Your task to perform on an android device: open device folders in google photos Image 0: 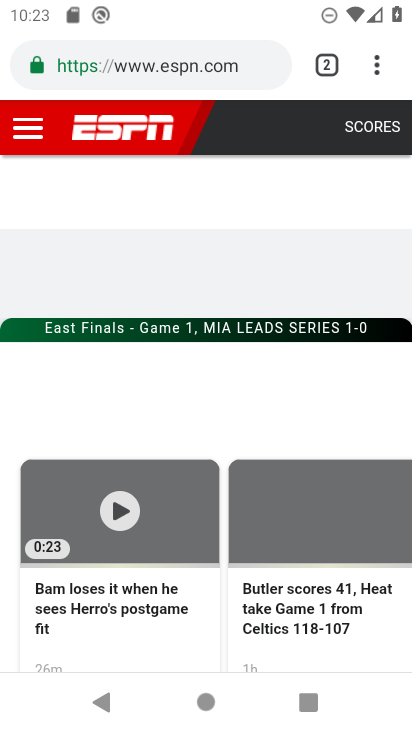
Step 0: press home button
Your task to perform on an android device: open device folders in google photos Image 1: 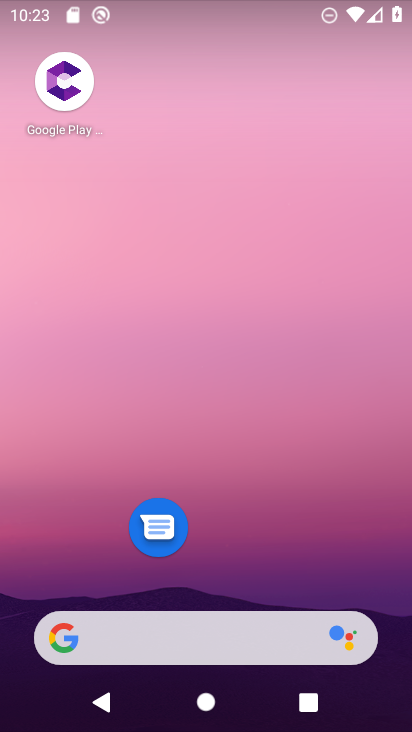
Step 1: drag from (271, 561) to (301, 5)
Your task to perform on an android device: open device folders in google photos Image 2: 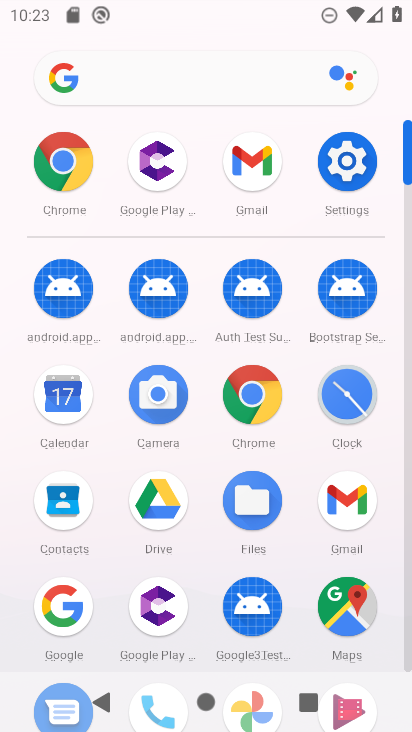
Step 2: click (409, 653)
Your task to perform on an android device: open device folders in google photos Image 3: 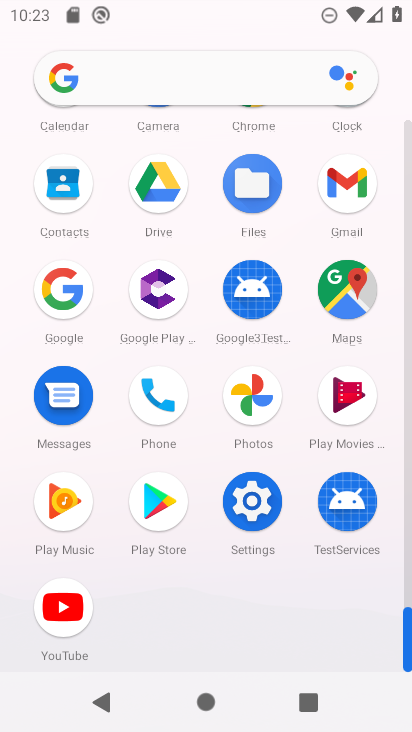
Step 3: click (234, 602)
Your task to perform on an android device: open device folders in google photos Image 4: 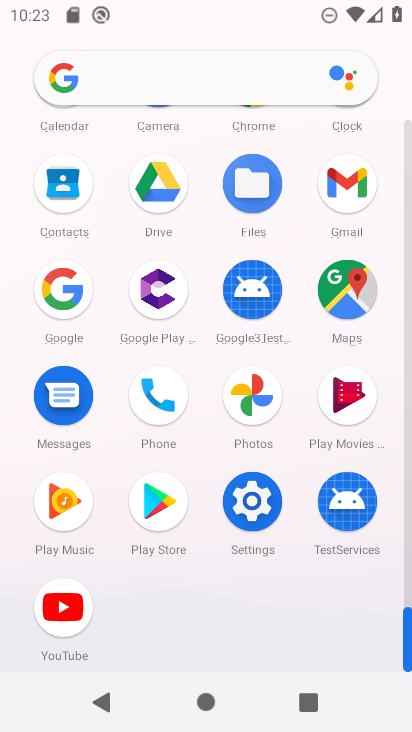
Step 4: drag from (256, 403) to (192, 285)
Your task to perform on an android device: open device folders in google photos Image 5: 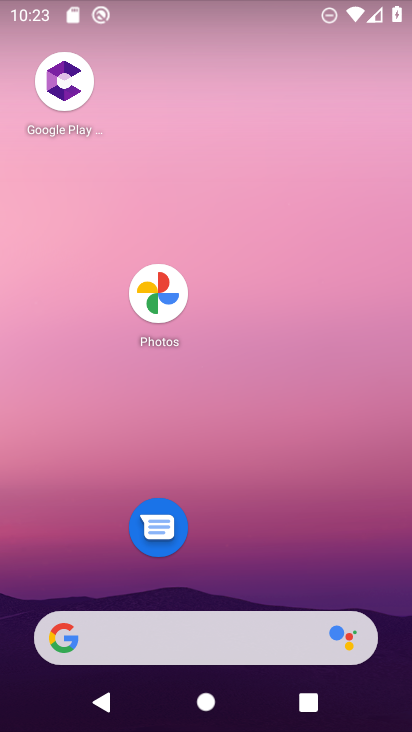
Step 5: click (174, 303)
Your task to perform on an android device: open device folders in google photos Image 6: 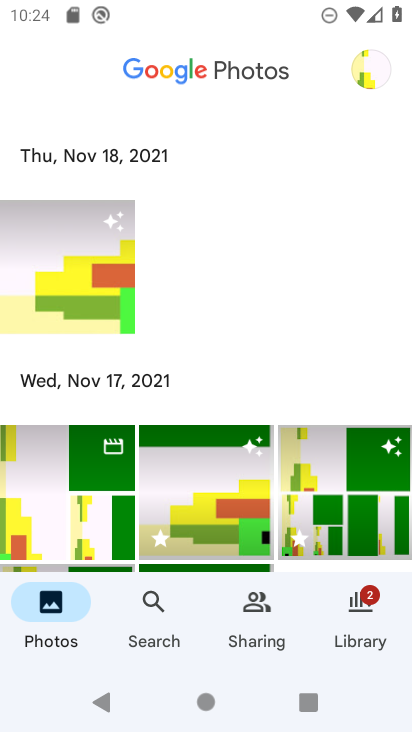
Step 6: click (348, 586)
Your task to perform on an android device: open device folders in google photos Image 7: 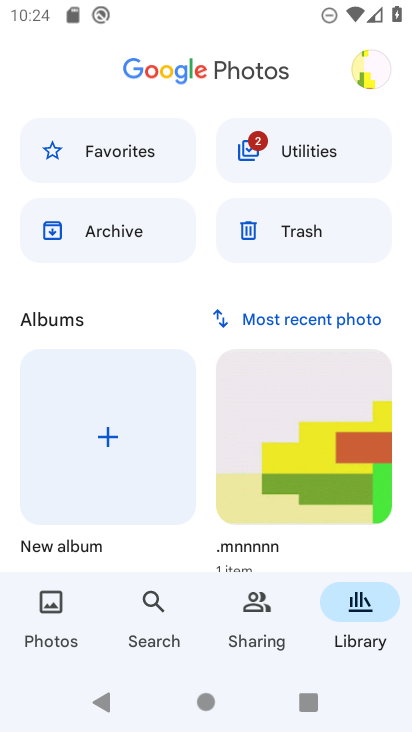
Step 7: click (371, 87)
Your task to perform on an android device: open device folders in google photos Image 8: 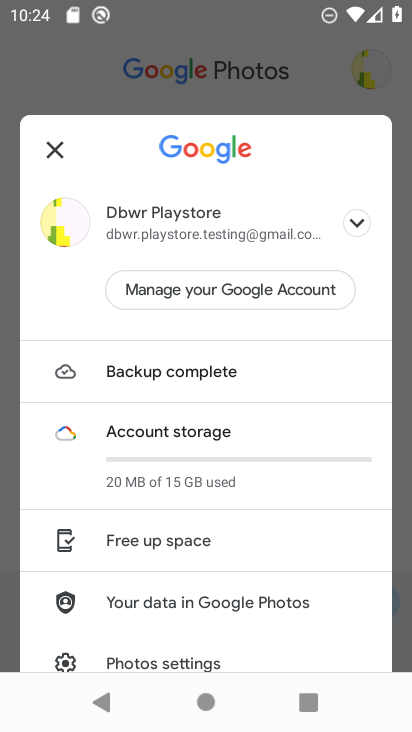
Step 8: drag from (215, 525) to (283, 255)
Your task to perform on an android device: open device folders in google photos Image 9: 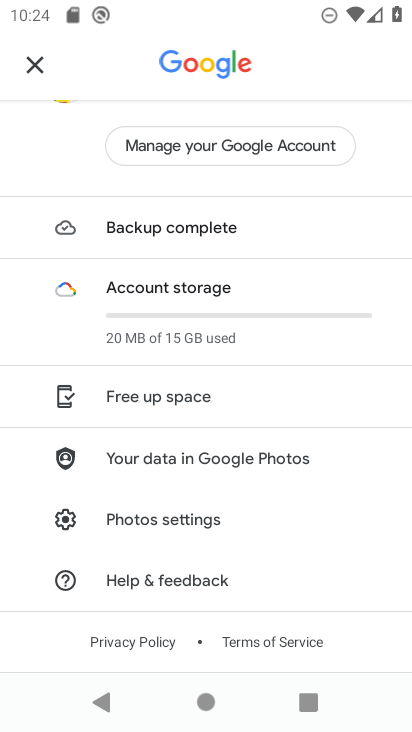
Step 9: click (231, 524)
Your task to perform on an android device: open device folders in google photos Image 10: 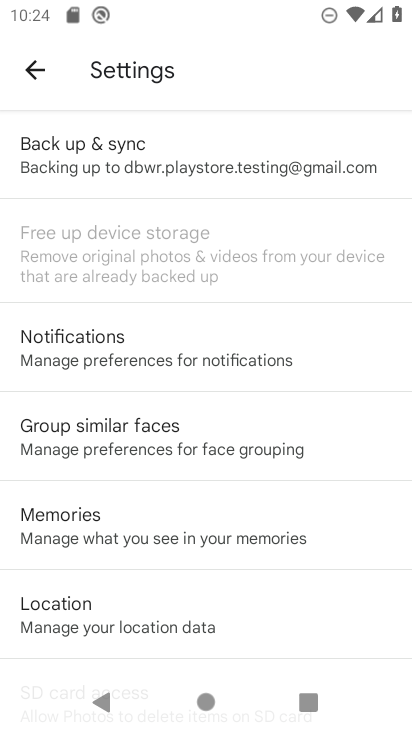
Step 10: task complete